Your task to perform on an android device: turn off wifi Image 0: 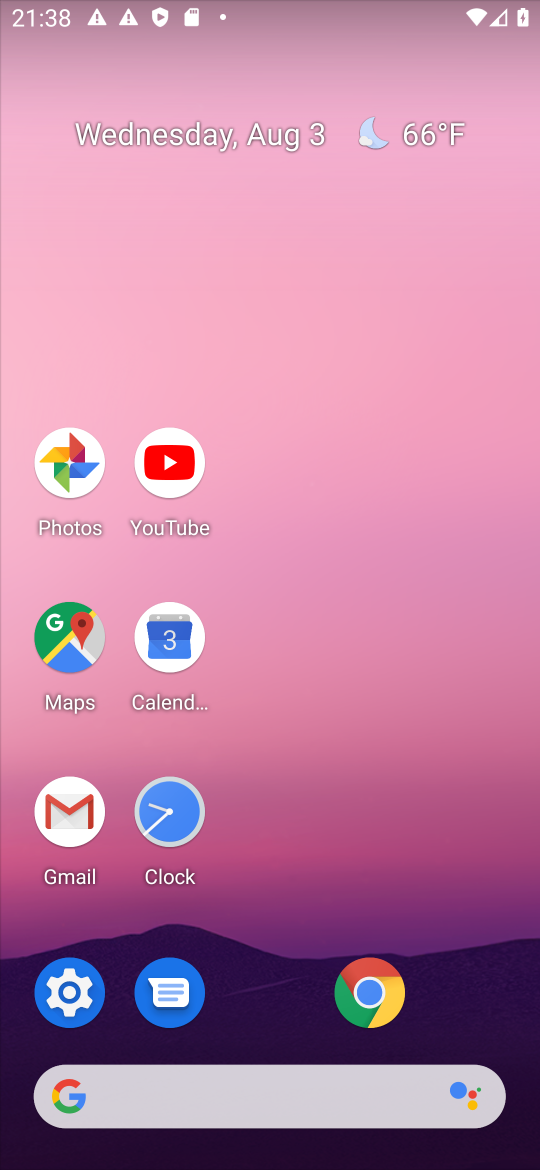
Step 0: click (69, 998)
Your task to perform on an android device: turn off wifi Image 1: 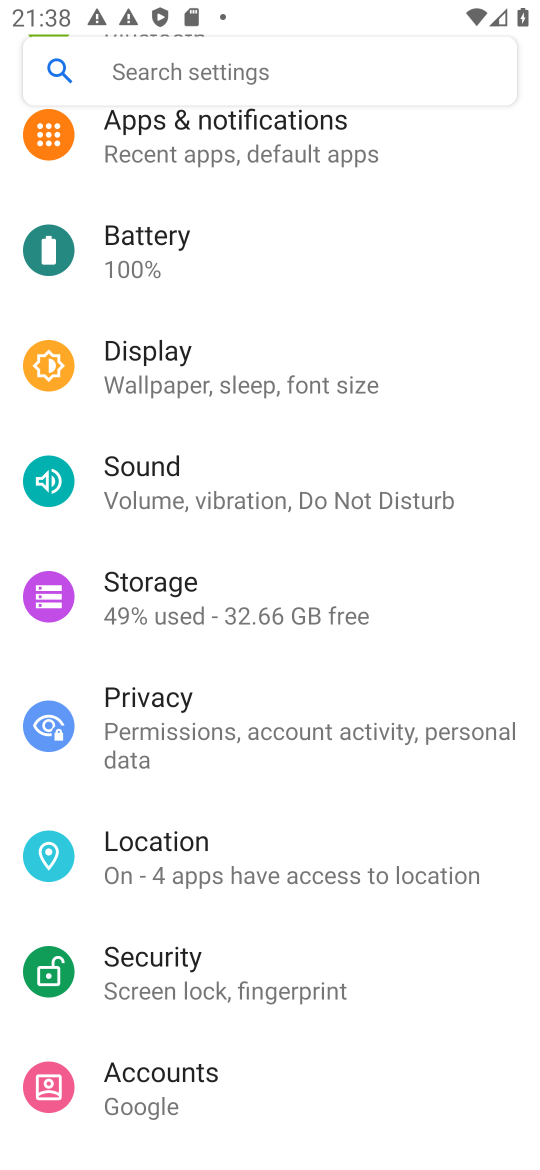
Step 1: drag from (316, 245) to (383, 878)
Your task to perform on an android device: turn off wifi Image 2: 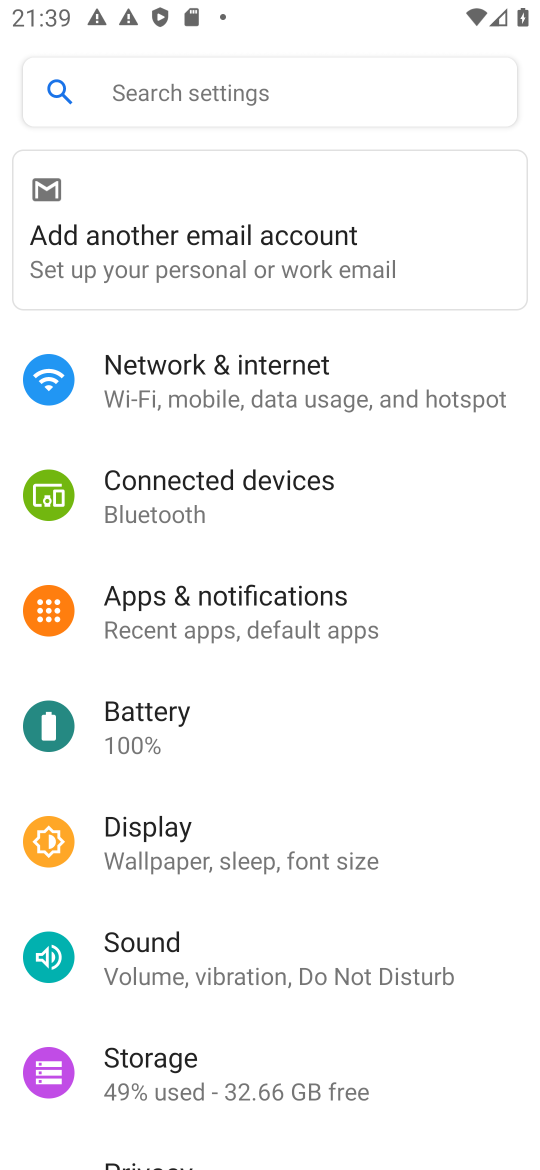
Step 2: click (320, 389)
Your task to perform on an android device: turn off wifi Image 3: 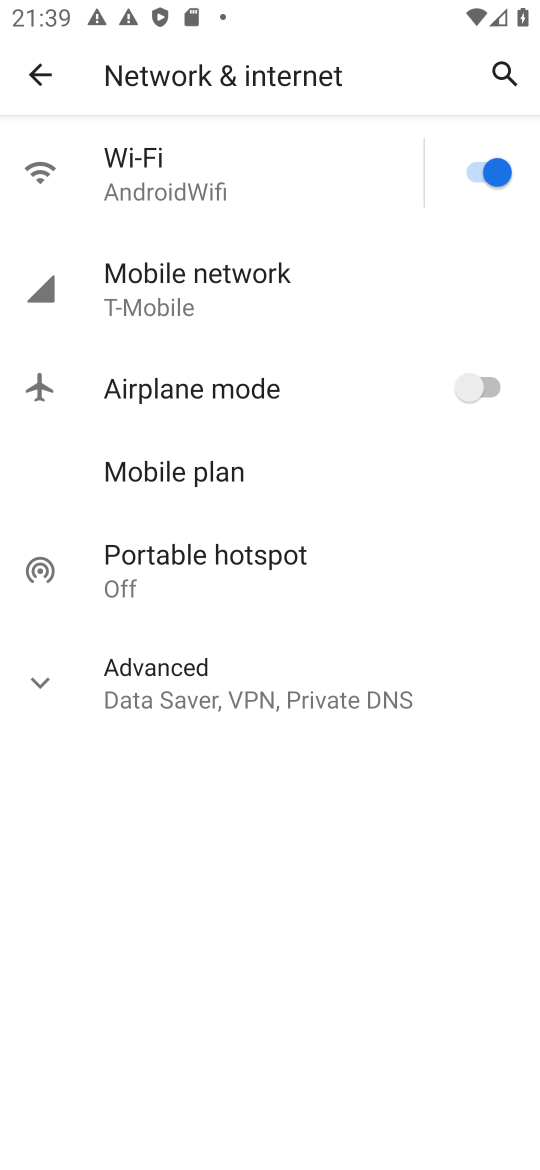
Step 3: click (500, 171)
Your task to perform on an android device: turn off wifi Image 4: 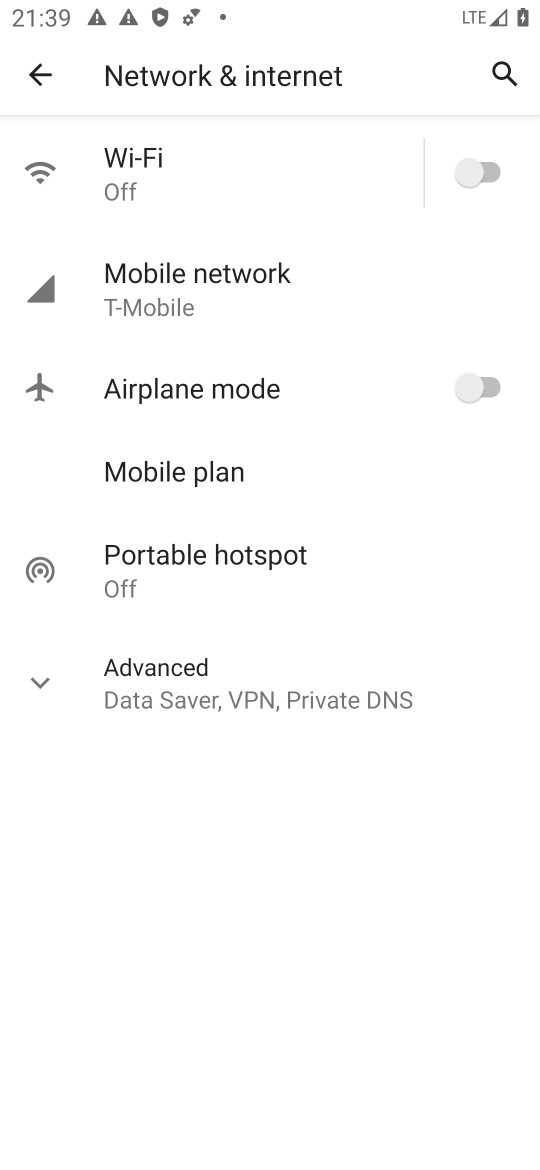
Step 4: task complete